Your task to perform on an android device: change the clock style Image 0: 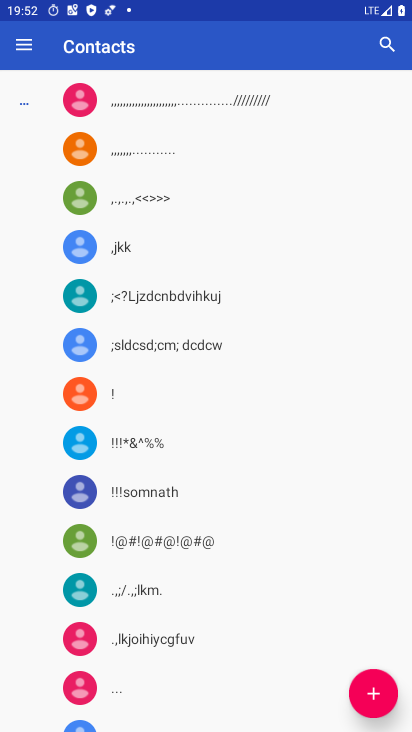
Step 0: press home button
Your task to perform on an android device: change the clock style Image 1: 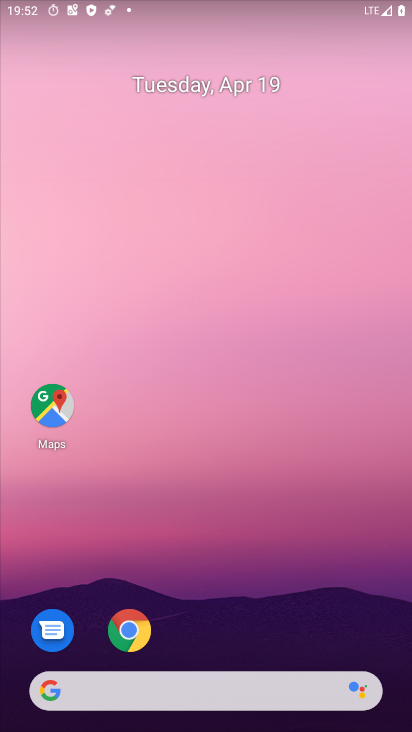
Step 1: drag from (206, 661) to (199, 67)
Your task to perform on an android device: change the clock style Image 2: 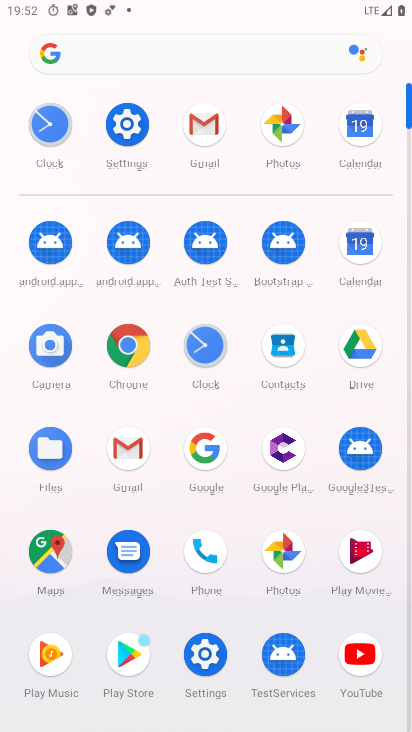
Step 2: click (203, 373)
Your task to perform on an android device: change the clock style Image 3: 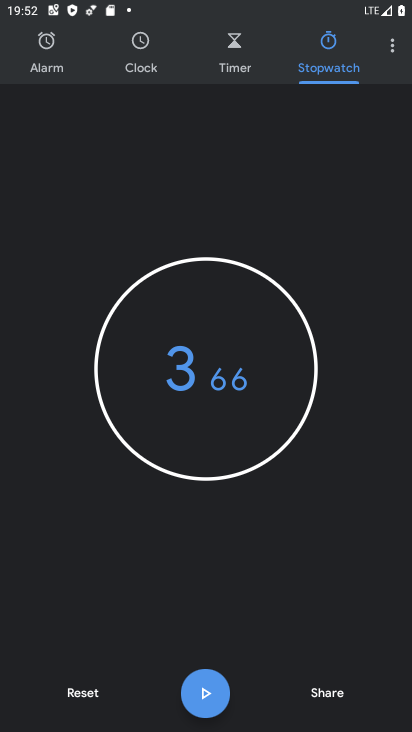
Step 3: click (393, 47)
Your task to perform on an android device: change the clock style Image 4: 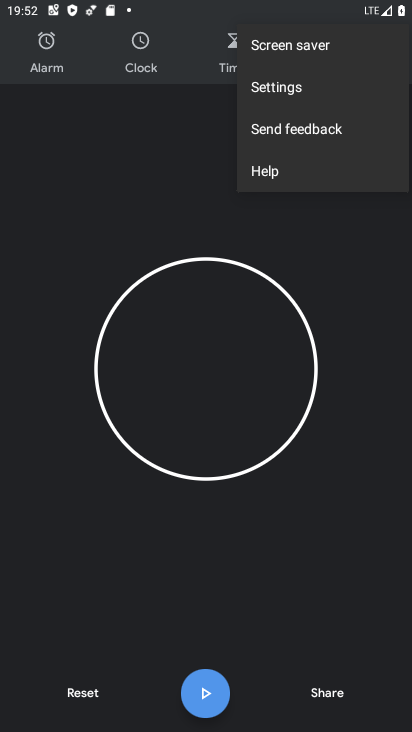
Step 4: click (317, 92)
Your task to perform on an android device: change the clock style Image 5: 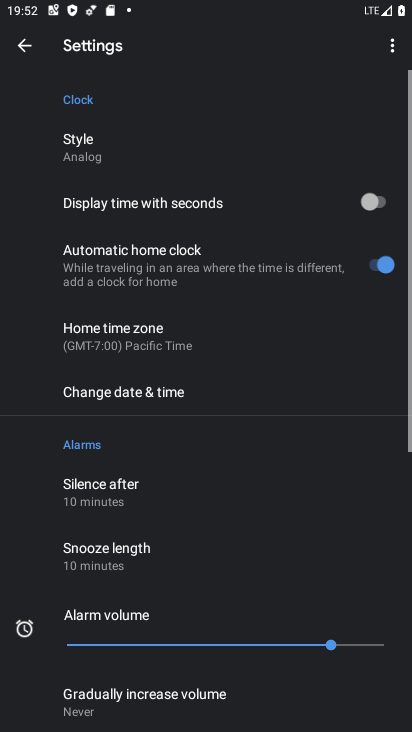
Step 5: click (115, 149)
Your task to perform on an android device: change the clock style Image 6: 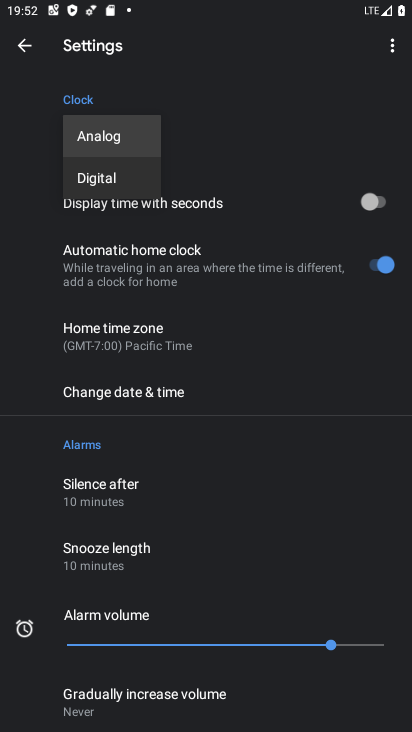
Step 6: click (110, 173)
Your task to perform on an android device: change the clock style Image 7: 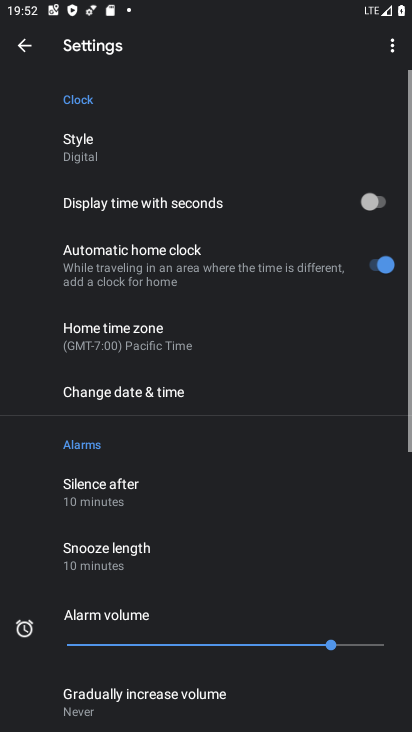
Step 7: task complete